Your task to perform on an android device: Open accessibility settings Image 0: 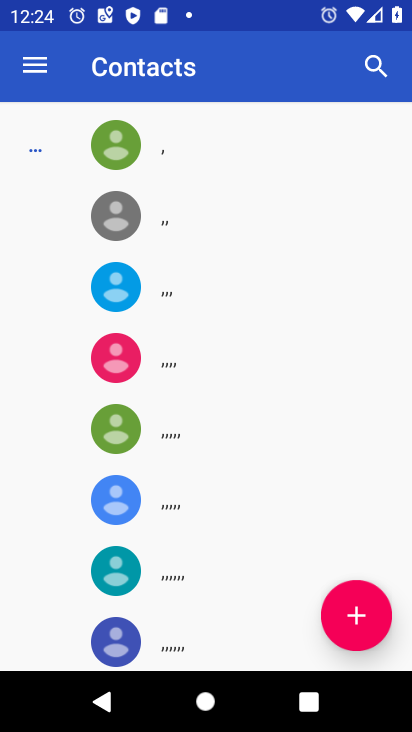
Step 0: press home button
Your task to perform on an android device: Open accessibility settings Image 1: 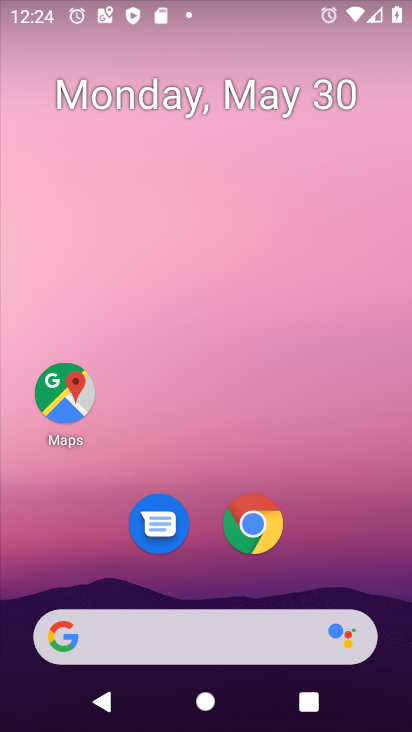
Step 1: drag from (214, 458) to (198, 3)
Your task to perform on an android device: Open accessibility settings Image 2: 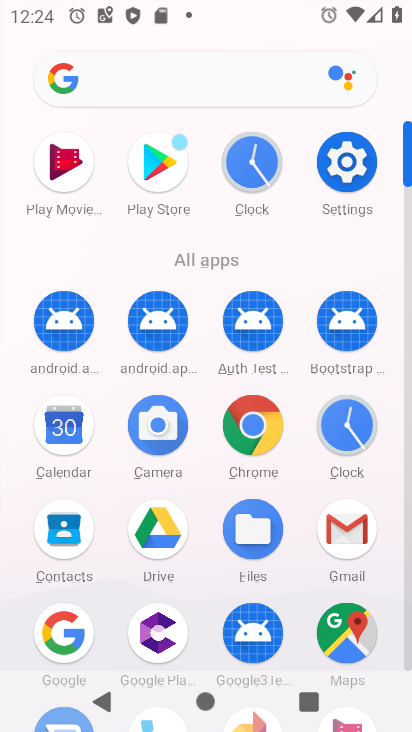
Step 2: click (359, 165)
Your task to perform on an android device: Open accessibility settings Image 3: 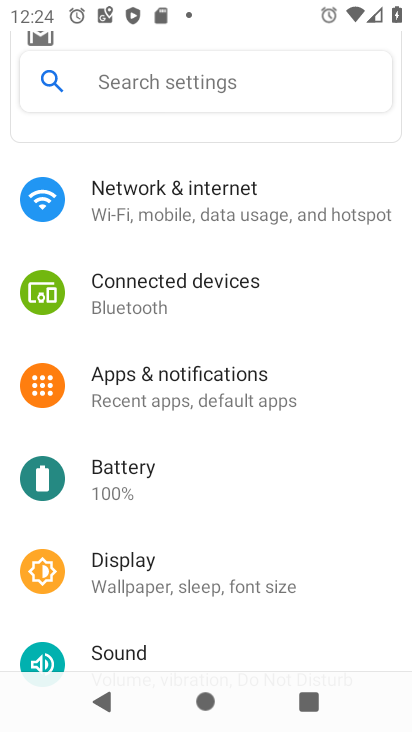
Step 3: drag from (231, 560) to (255, 139)
Your task to perform on an android device: Open accessibility settings Image 4: 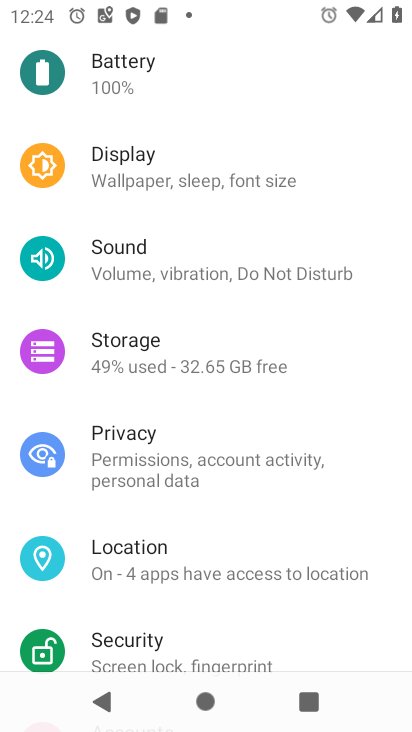
Step 4: drag from (256, 548) to (245, 104)
Your task to perform on an android device: Open accessibility settings Image 5: 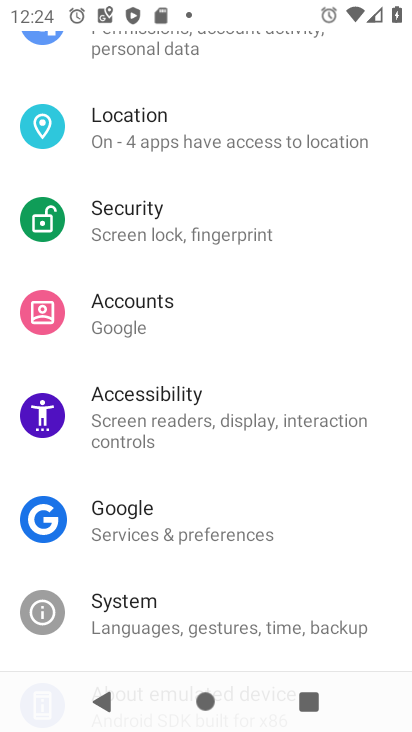
Step 5: click (235, 404)
Your task to perform on an android device: Open accessibility settings Image 6: 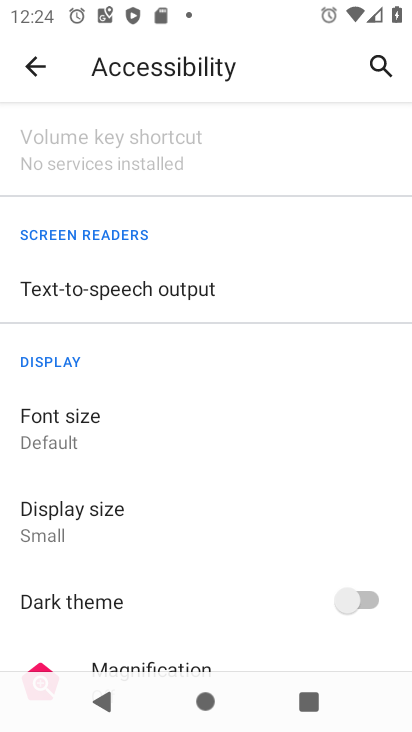
Step 6: task complete